Your task to perform on an android device: Open network settings Image 0: 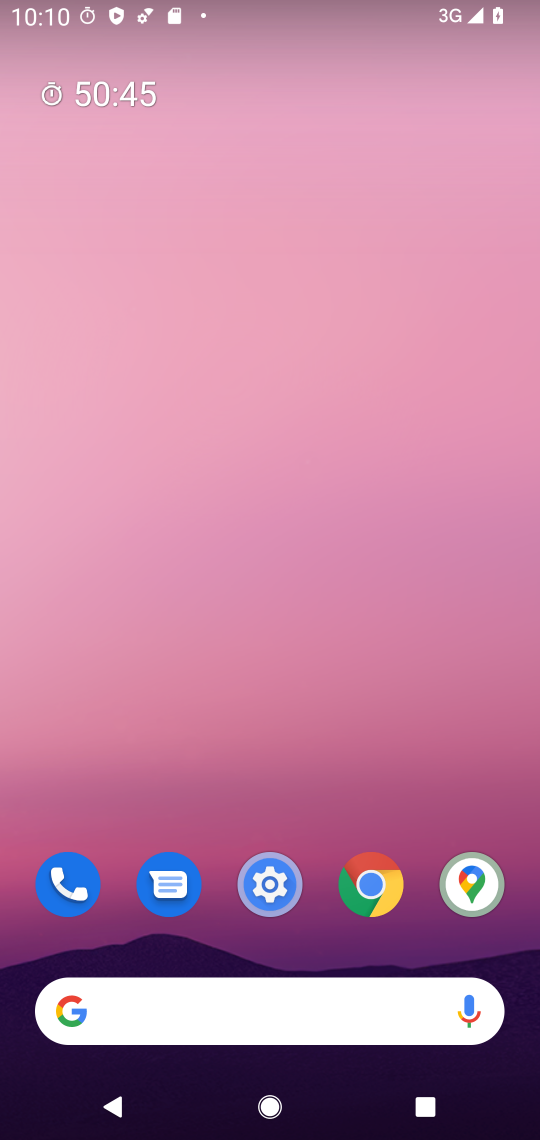
Step 0: click (273, 902)
Your task to perform on an android device: Open network settings Image 1: 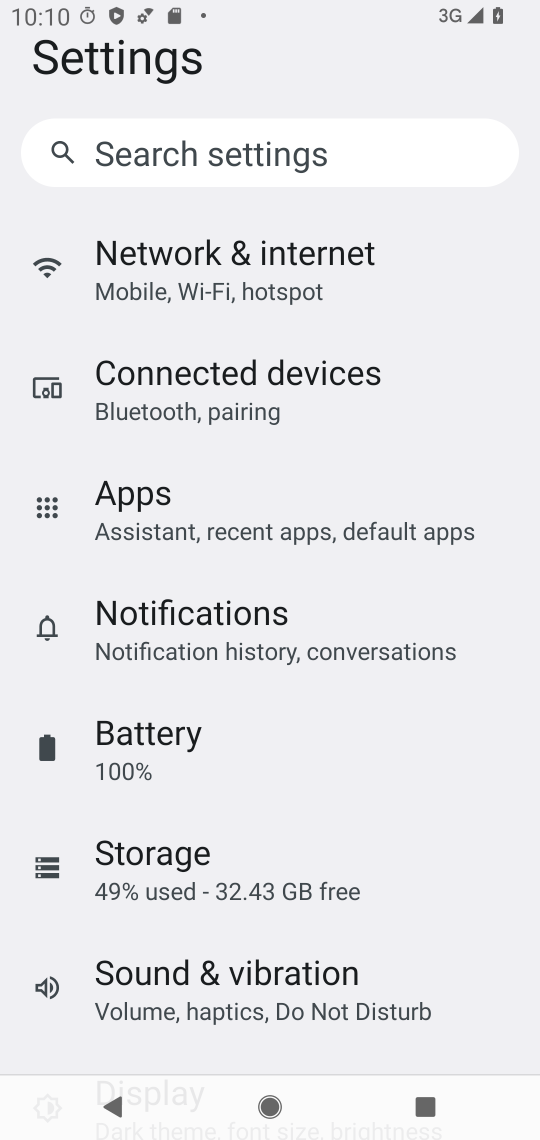
Step 1: click (234, 292)
Your task to perform on an android device: Open network settings Image 2: 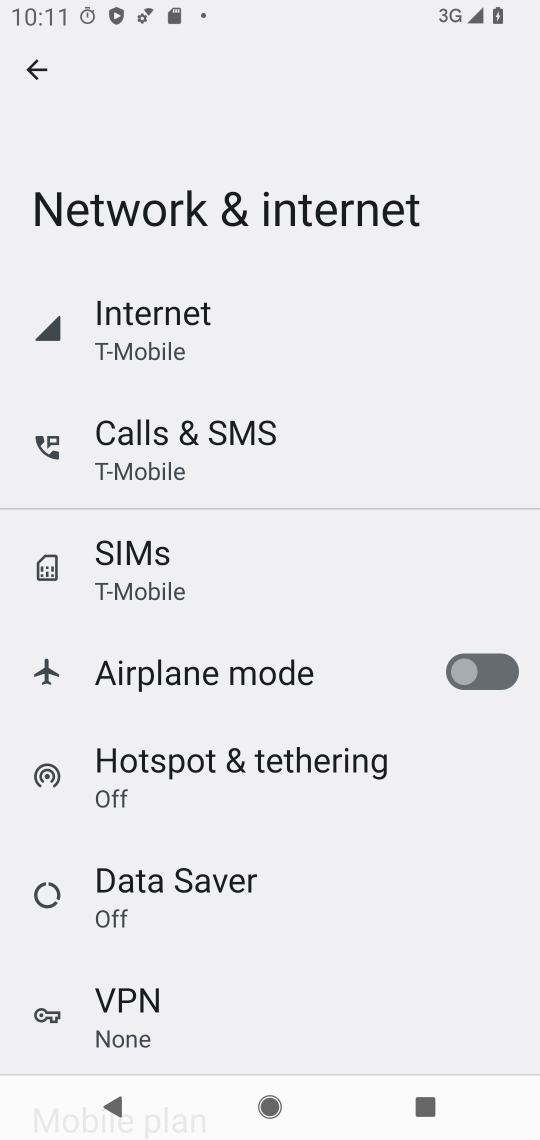
Step 2: task complete